Your task to perform on an android device: toggle wifi Image 0: 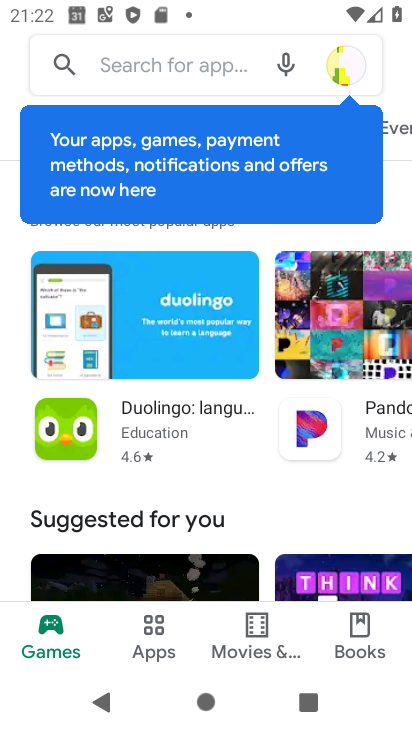
Step 0: press home button
Your task to perform on an android device: toggle wifi Image 1: 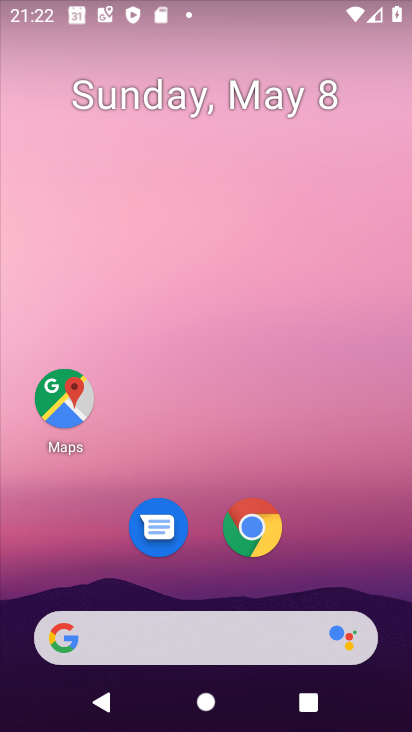
Step 1: drag from (193, 587) to (196, 139)
Your task to perform on an android device: toggle wifi Image 2: 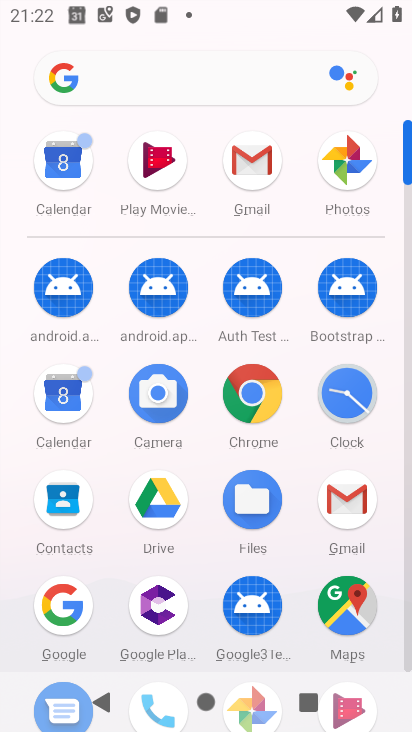
Step 2: drag from (212, 608) to (231, 223)
Your task to perform on an android device: toggle wifi Image 3: 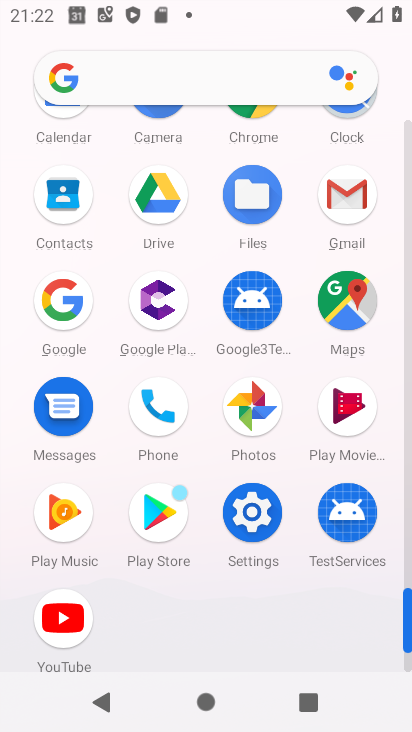
Step 3: click (250, 514)
Your task to perform on an android device: toggle wifi Image 4: 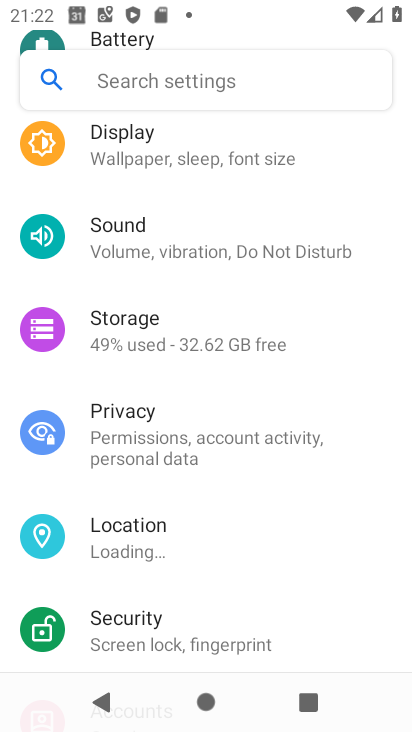
Step 4: drag from (154, 199) to (151, 598)
Your task to perform on an android device: toggle wifi Image 5: 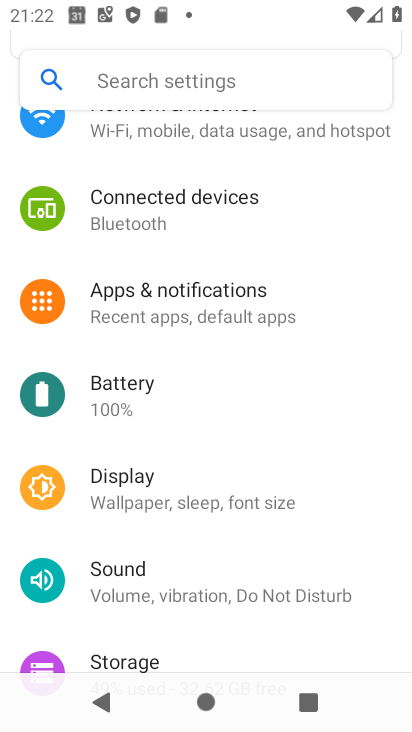
Step 5: drag from (136, 154) to (139, 272)
Your task to perform on an android device: toggle wifi Image 6: 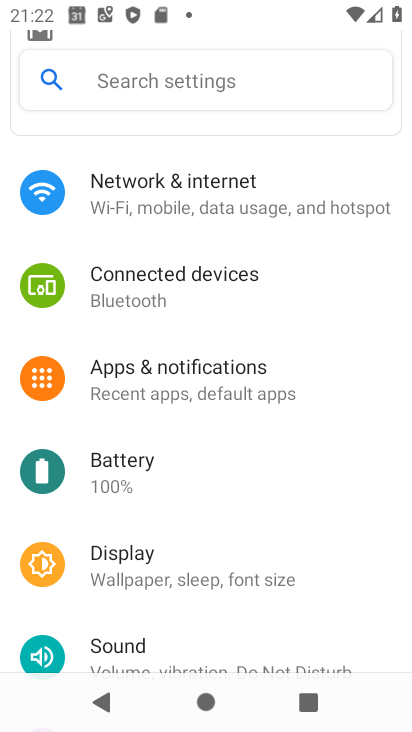
Step 6: click (156, 201)
Your task to perform on an android device: toggle wifi Image 7: 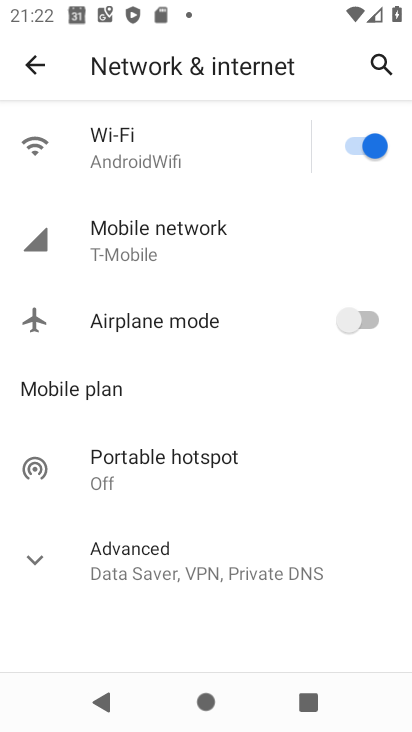
Step 7: click (367, 141)
Your task to perform on an android device: toggle wifi Image 8: 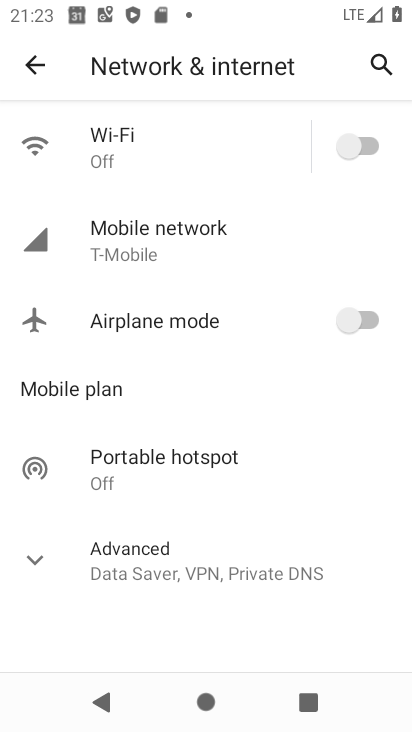
Step 8: task complete